Your task to perform on an android device: Go to accessibility settings Image 0: 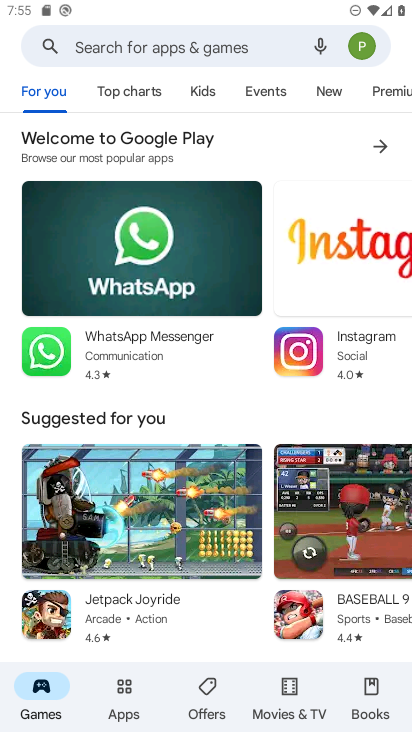
Step 0: press home button
Your task to perform on an android device: Go to accessibility settings Image 1: 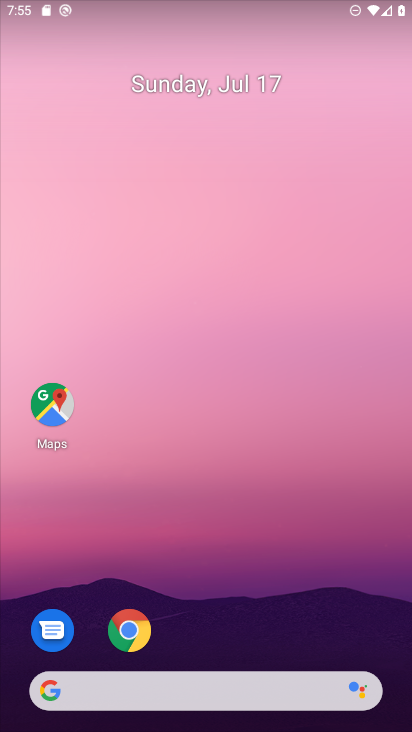
Step 1: drag from (228, 636) to (285, 322)
Your task to perform on an android device: Go to accessibility settings Image 2: 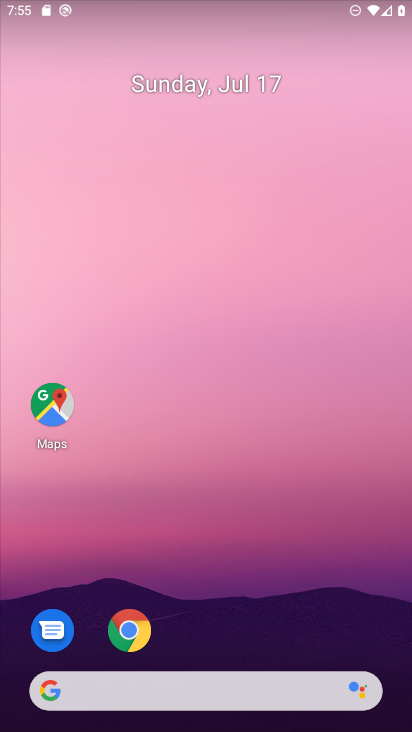
Step 2: drag from (283, 567) to (291, 149)
Your task to perform on an android device: Go to accessibility settings Image 3: 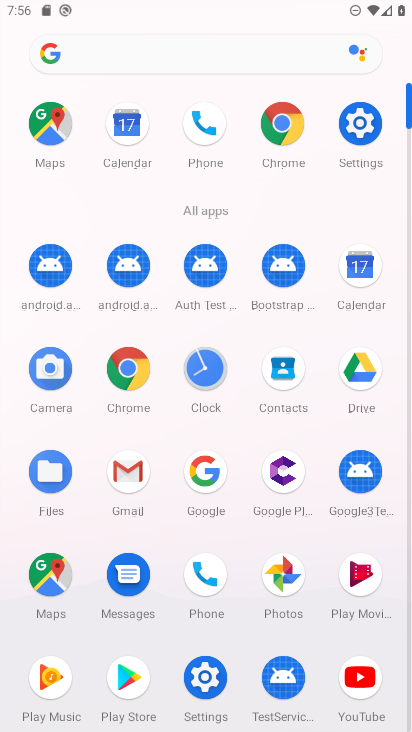
Step 3: click (373, 120)
Your task to perform on an android device: Go to accessibility settings Image 4: 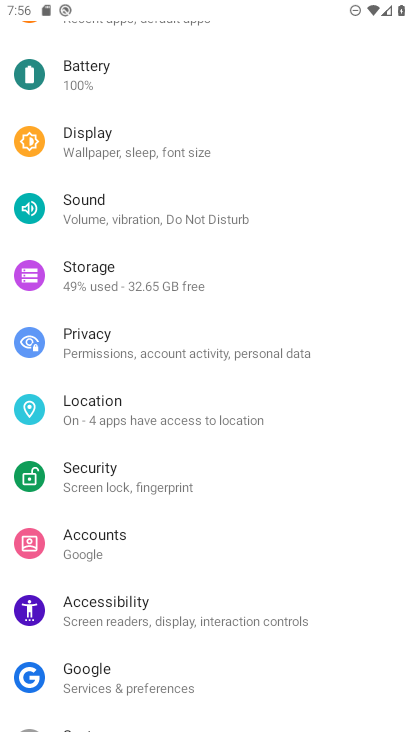
Step 4: click (137, 622)
Your task to perform on an android device: Go to accessibility settings Image 5: 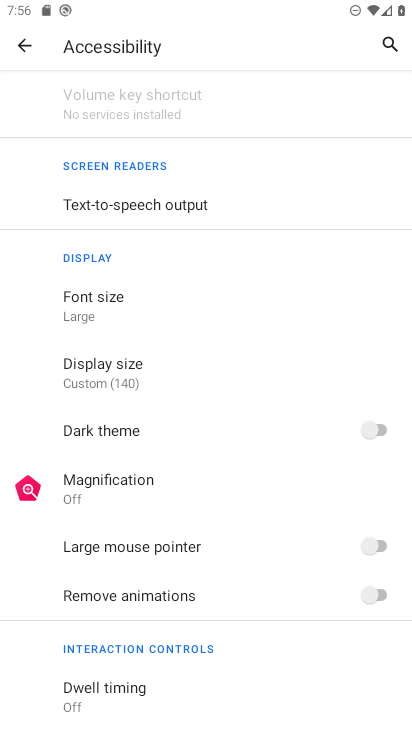
Step 5: task complete